Your task to perform on an android device: Show me productivity apps on the Play Store Image 0: 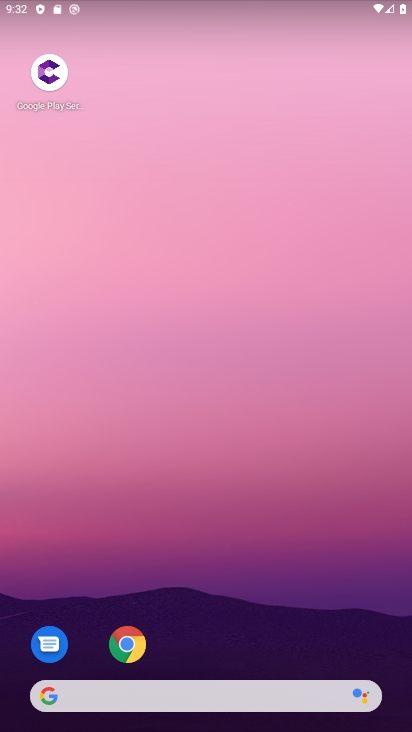
Step 0: drag from (229, 692) to (177, 256)
Your task to perform on an android device: Show me productivity apps on the Play Store Image 1: 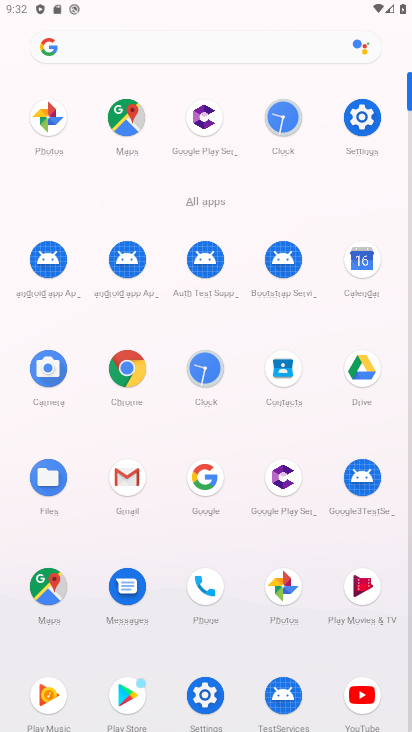
Step 1: click (137, 688)
Your task to perform on an android device: Show me productivity apps on the Play Store Image 2: 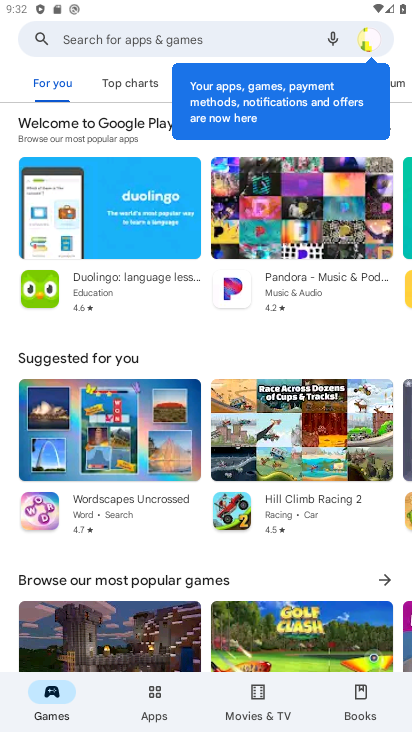
Step 2: click (162, 709)
Your task to perform on an android device: Show me productivity apps on the Play Store Image 3: 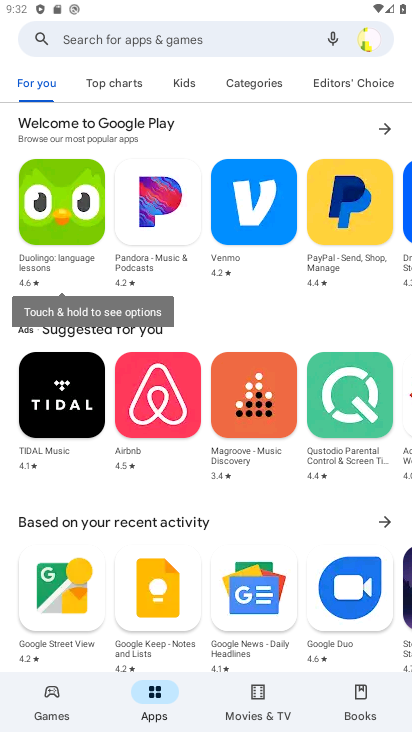
Step 3: click (253, 74)
Your task to perform on an android device: Show me productivity apps on the Play Store Image 4: 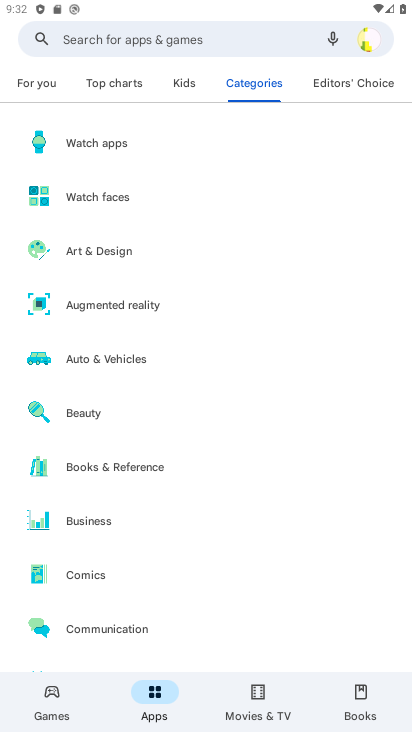
Step 4: drag from (159, 593) to (182, 0)
Your task to perform on an android device: Show me productivity apps on the Play Store Image 5: 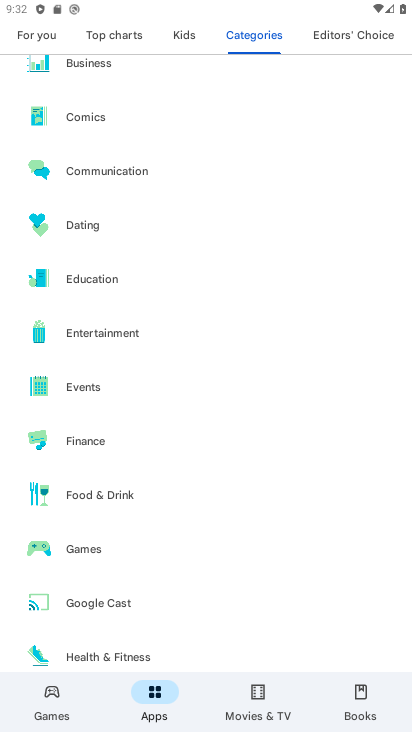
Step 5: drag from (168, 586) to (94, 54)
Your task to perform on an android device: Show me productivity apps on the Play Store Image 6: 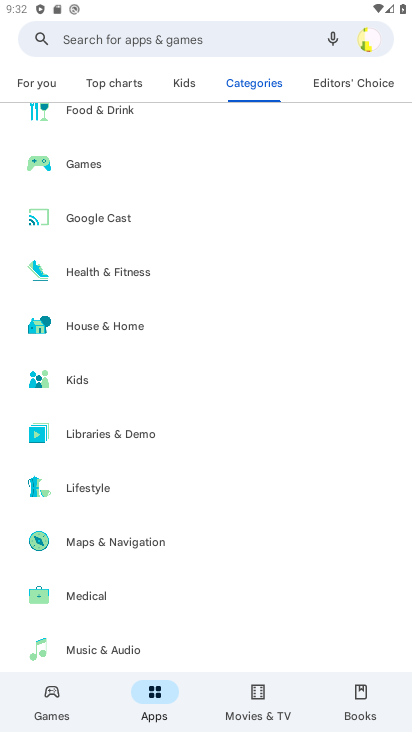
Step 6: drag from (170, 560) to (173, 45)
Your task to perform on an android device: Show me productivity apps on the Play Store Image 7: 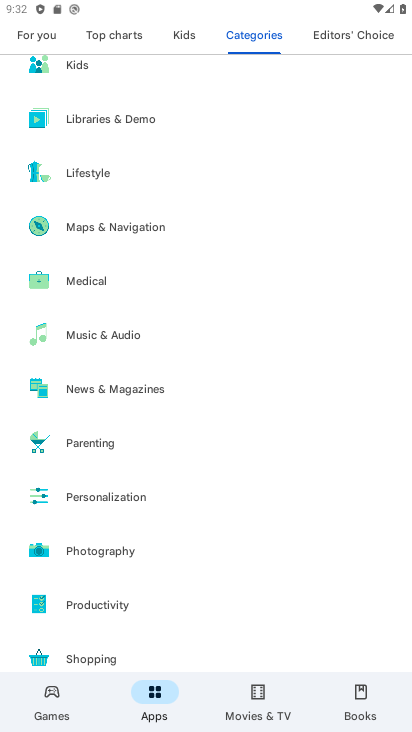
Step 7: click (93, 601)
Your task to perform on an android device: Show me productivity apps on the Play Store Image 8: 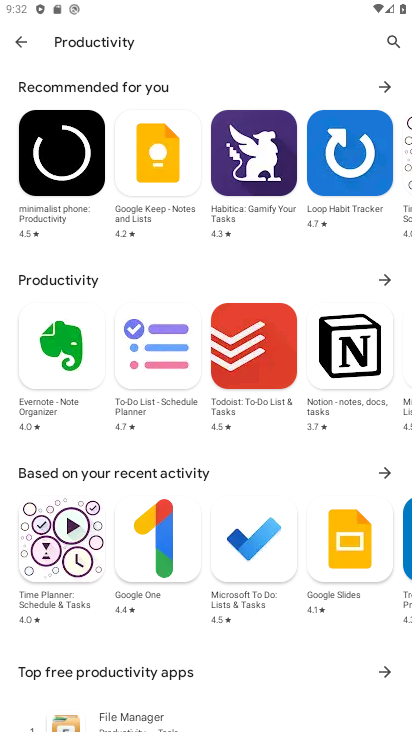
Step 8: task complete